Your task to perform on an android device: What's on my calendar today? Image 0: 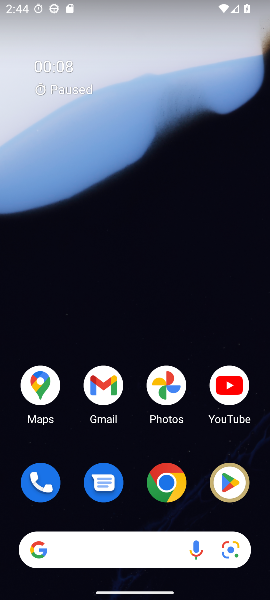
Step 0: drag from (133, 536) to (180, 66)
Your task to perform on an android device: What's on my calendar today? Image 1: 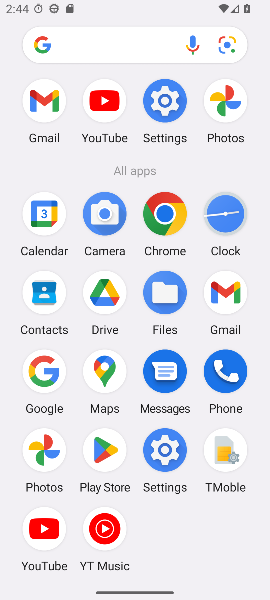
Step 1: click (37, 210)
Your task to perform on an android device: What's on my calendar today? Image 2: 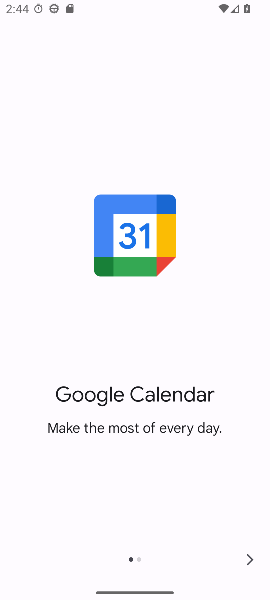
Step 2: click (244, 561)
Your task to perform on an android device: What's on my calendar today? Image 3: 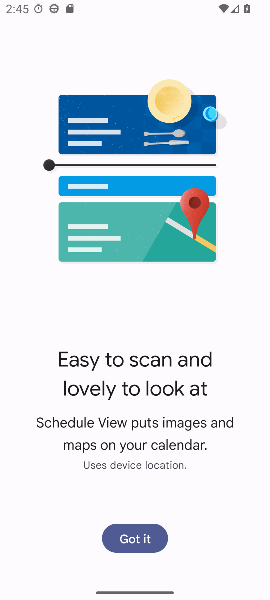
Step 3: click (152, 542)
Your task to perform on an android device: What's on my calendar today? Image 4: 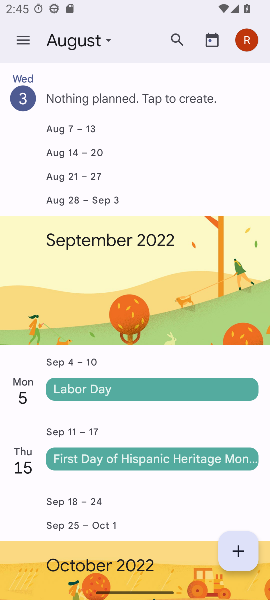
Step 4: click (81, 39)
Your task to perform on an android device: What's on my calendar today? Image 5: 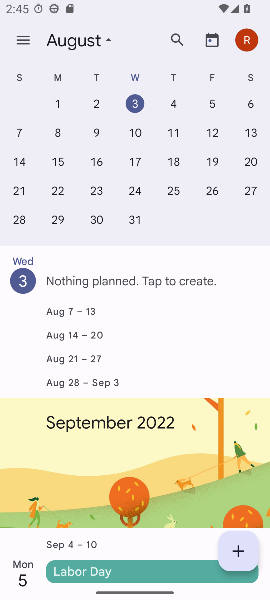
Step 5: click (23, 41)
Your task to perform on an android device: What's on my calendar today? Image 6: 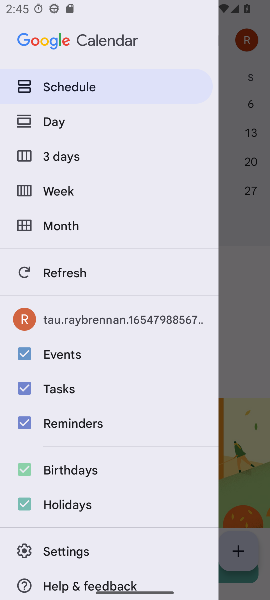
Step 6: click (56, 124)
Your task to perform on an android device: What's on my calendar today? Image 7: 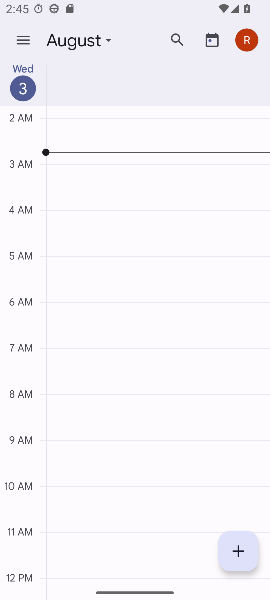
Step 7: task complete